Your task to perform on an android device: Go to internet settings Image 0: 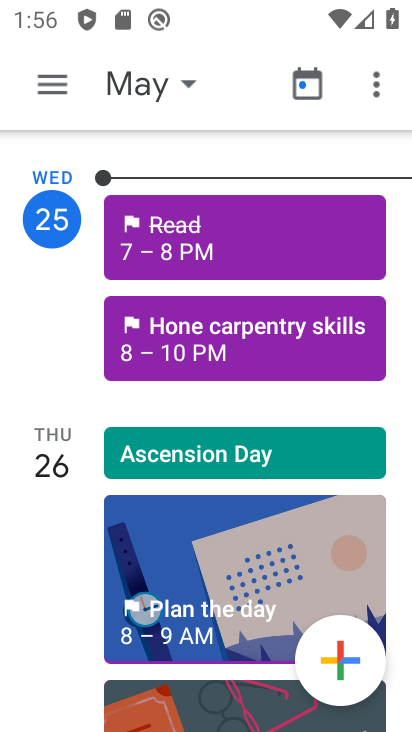
Step 0: press home button
Your task to perform on an android device: Go to internet settings Image 1: 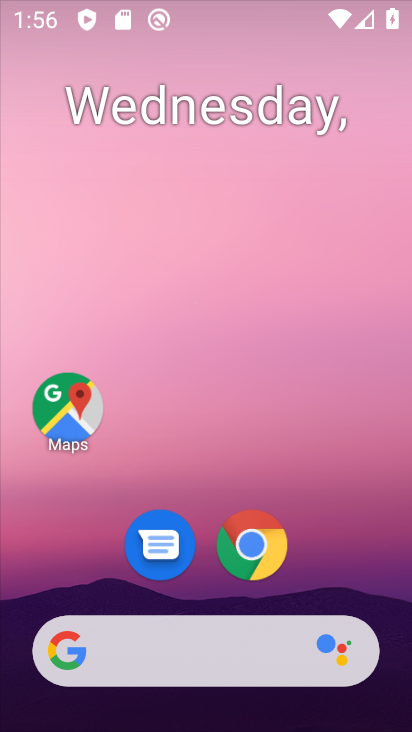
Step 1: drag from (404, 508) to (189, 21)
Your task to perform on an android device: Go to internet settings Image 2: 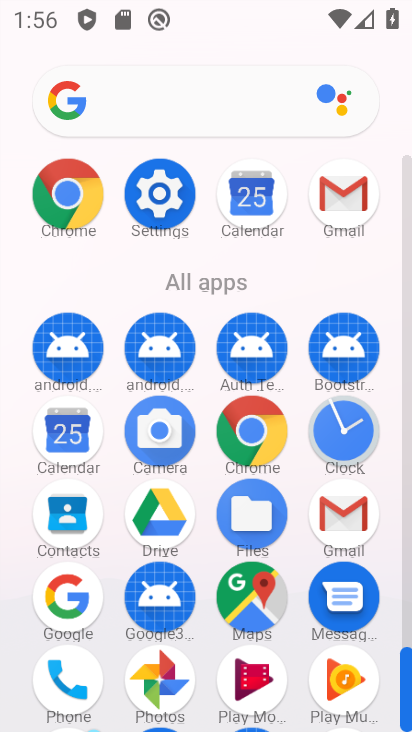
Step 2: click (163, 255)
Your task to perform on an android device: Go to internet settings Image 3: 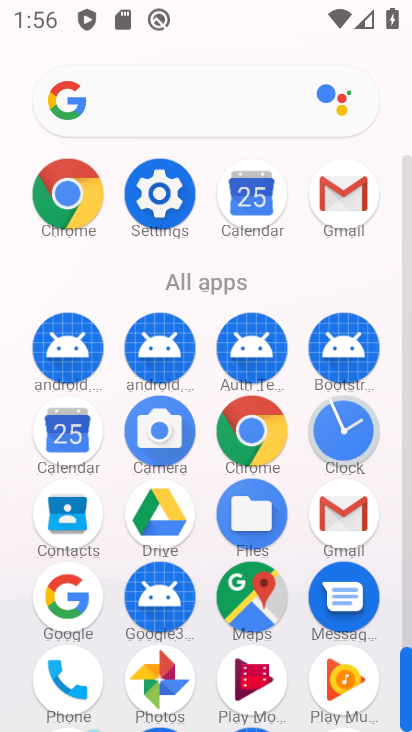
Step 3: click (152, 194)
Your task to perform on an android device: Go to internet settings Image 4: 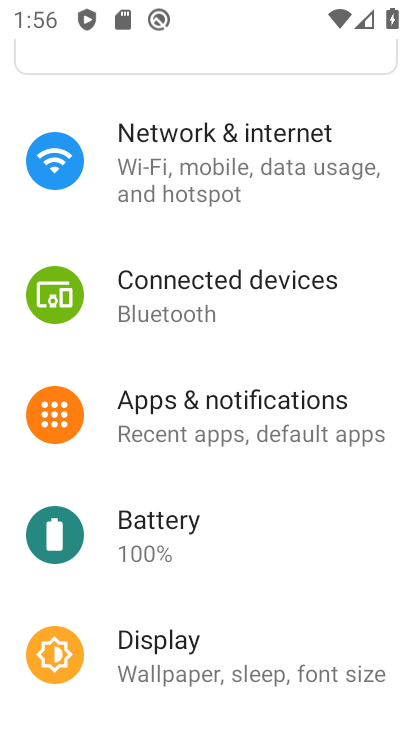
Step 4: click (261, 155)
Your task to perform on an android device: Go to internet settings Image 5: 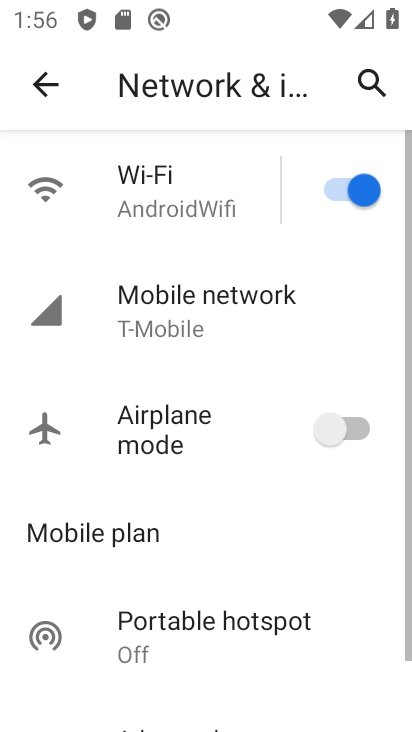
Step 5: task complete